Your task to perform on an android device: Open Chrome and go to the settings page Image 0: 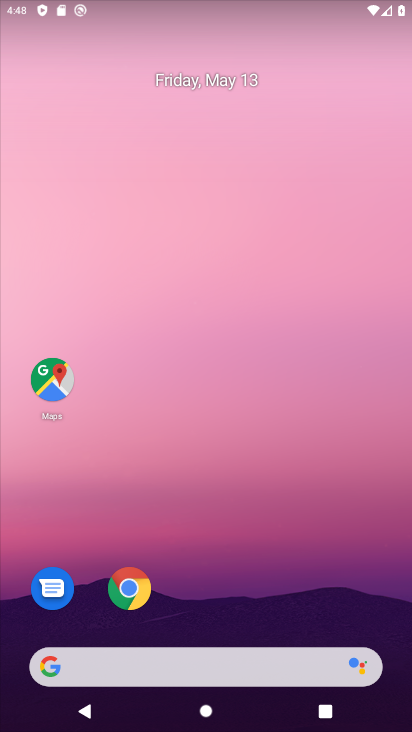
Step 0: click (121, 594)
Your task to perform on an android device: Open Chrome and go to the settings page Image 1: 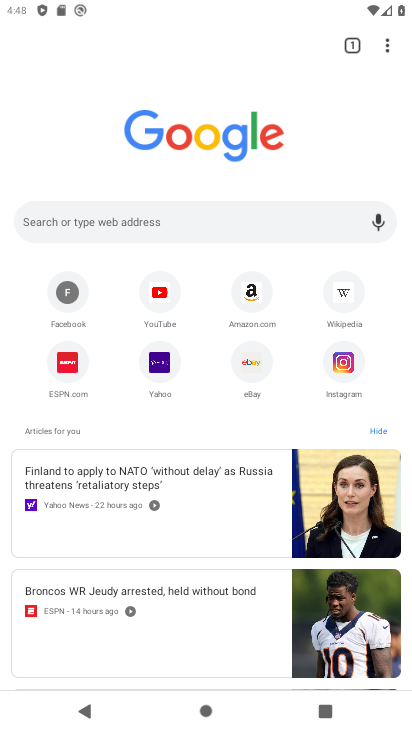
Step 1: task complete